Your task to perform on an android device: add a label to a message in the gmail app Image 0: 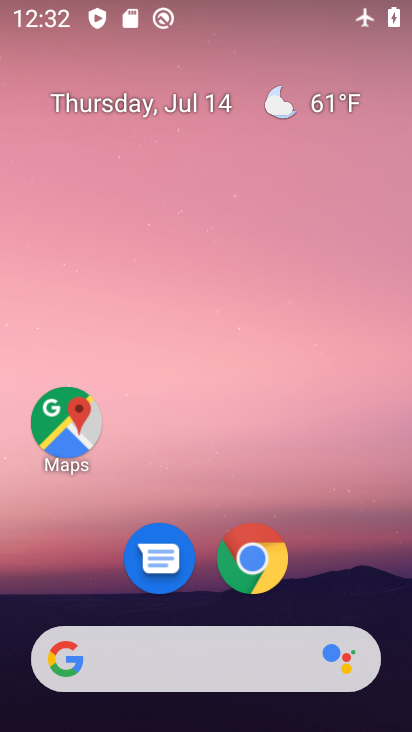
Step 0: drag from (201, 580) to (213, 3)
Your task to perform on an android device: add a label to a message in the gmail app Image 1: 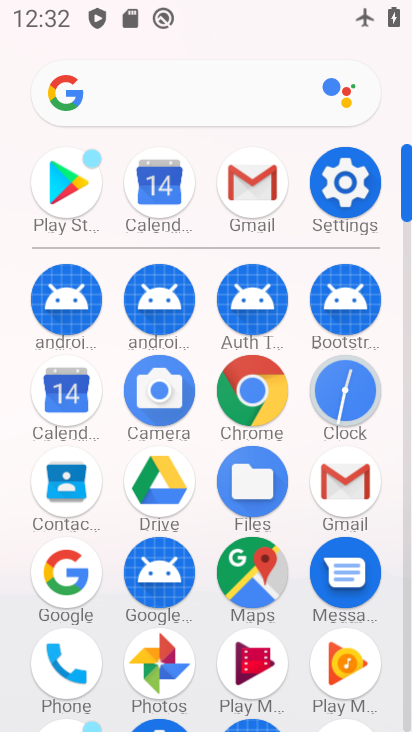
Step 1: click (241, 179)
Your task to perform on an android device: add a label to a message in the gmail app Image 2: 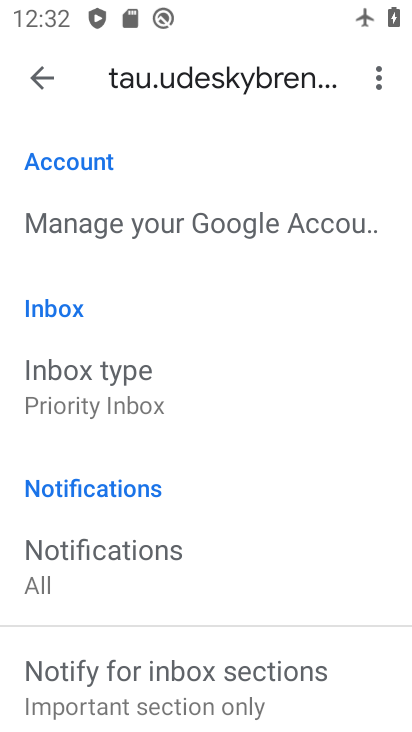
Step 2: click (32, 72)
Your task to perform on an android device: add a label to a message in the gmail app Image 3: 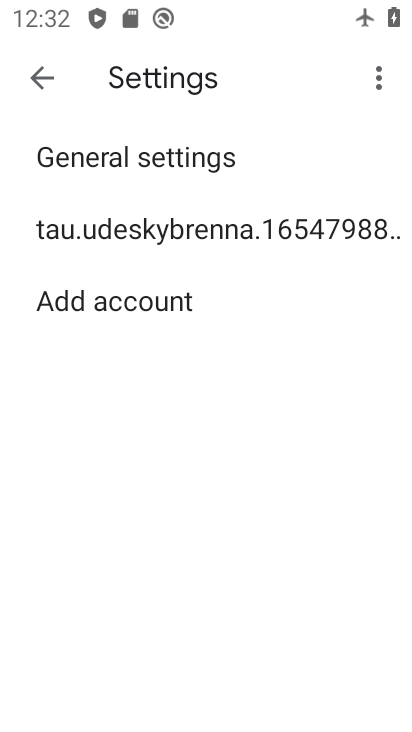
Step 3: click (172, 233)
Your task to perform on an android device: add a label to a message in the gmail app Image 4: 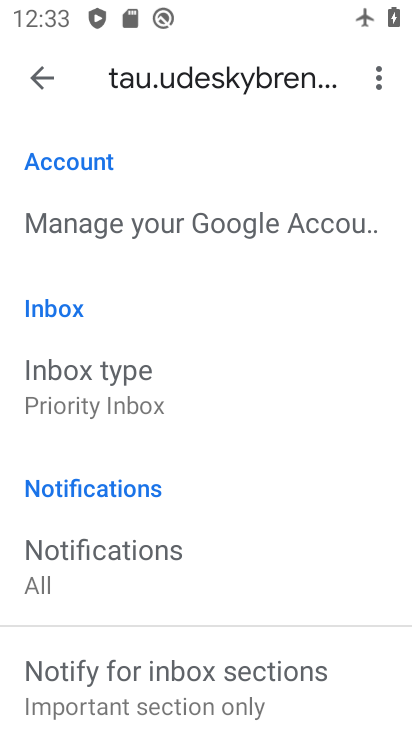
Step 4: click (46, 75)
Your task to perform on an android device: add a label to a message in the gmail app Image 5: 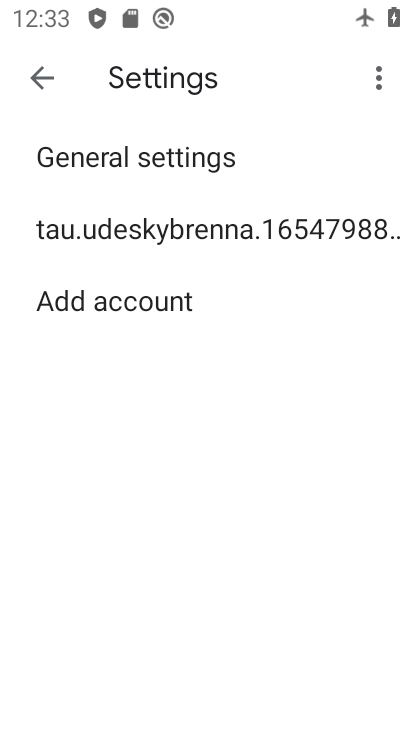
Step 5: click (43, 66)
Your task to perform on an android device: add a label to a message in the gmail app Image 6: 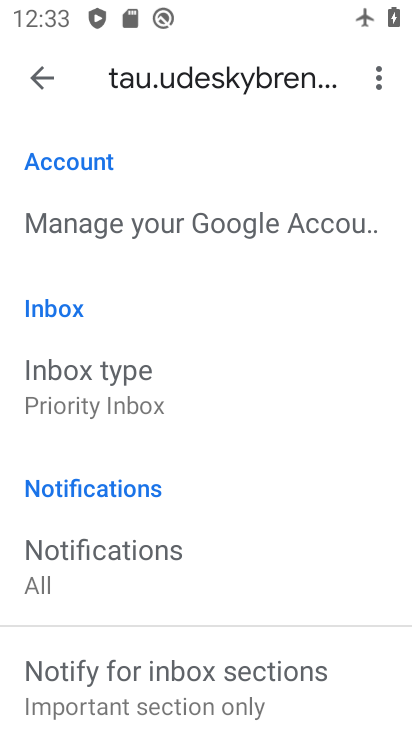
Step 6: drag from (159, 610) to (247, 52)
Your task to perform on an android device: add a label to a message in the gmail app Image 7: 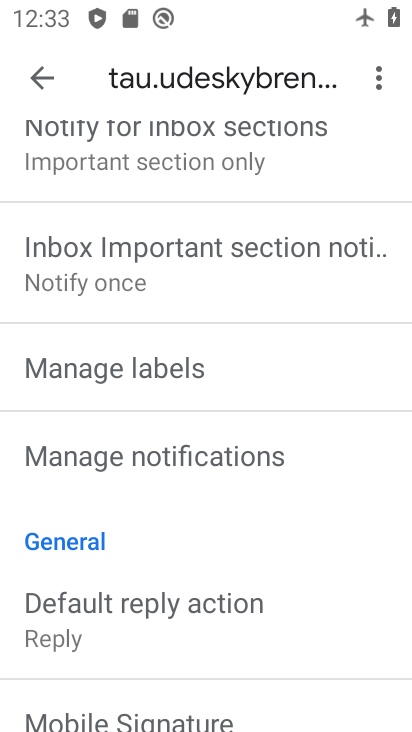
Step 7: drag from (224, 481) to (288, 77)
Your task to perform on an android device: add a label to a message in the gmail app Image 8: 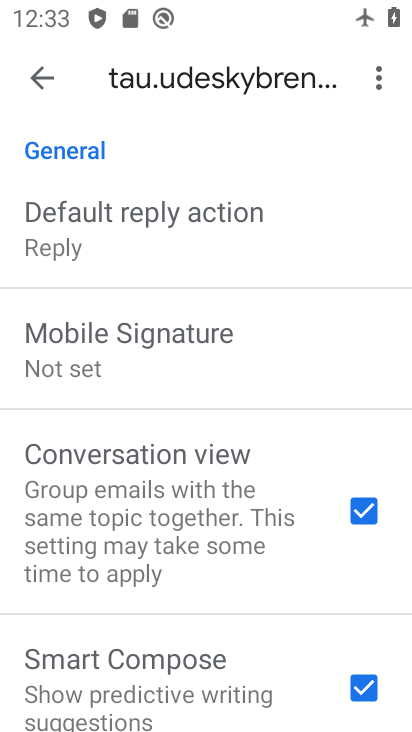
Step 8: drag from (257, 215) to (185, 727)
Your task to perform on an android device: add a label to a message in the gmail app Image 9: 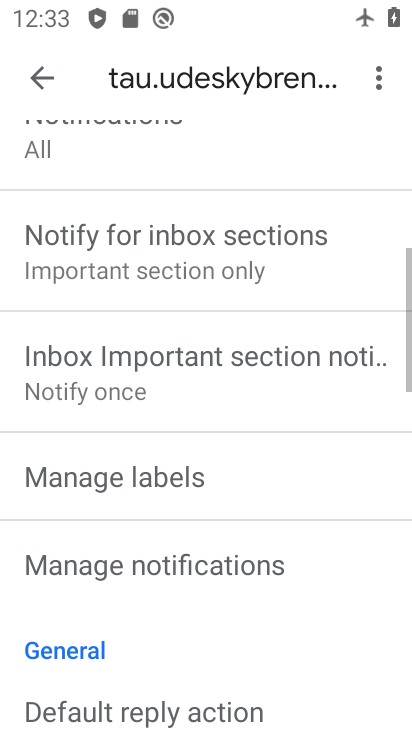
Step 9: drag from (177, 268) to (157, 688)
Your task to perform on an android device: add a label to a message in the gmail app Image 10: 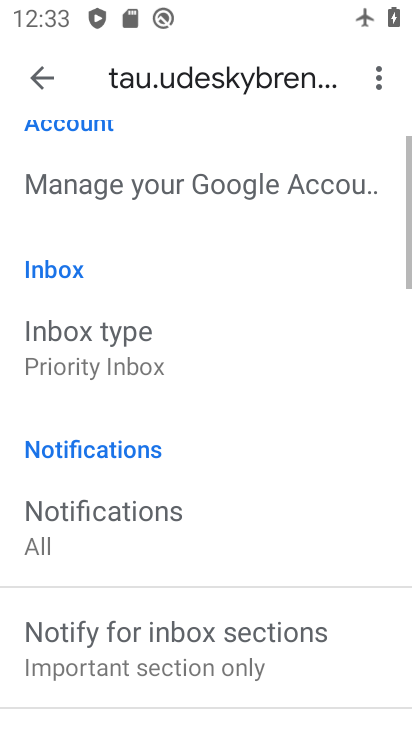
Step 10: drag from (170, 252) to (186, 723)
Your task to perform on an android device: add a label to a message in the gmail app Image 11: 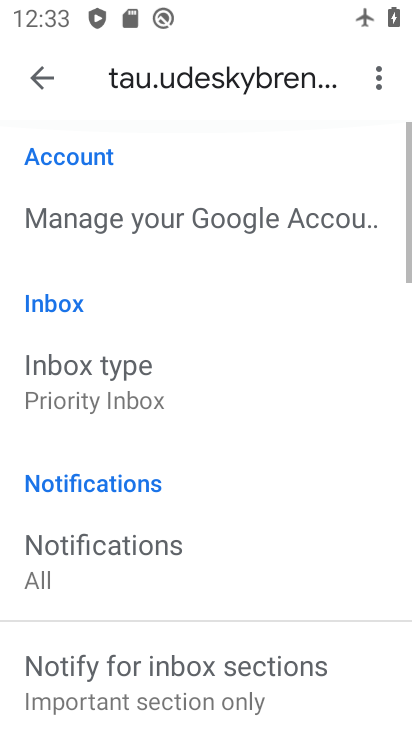
Step 11: click (36, 79)
Your task to perform on an android device: add a label to a message in the gmail app Image 12: 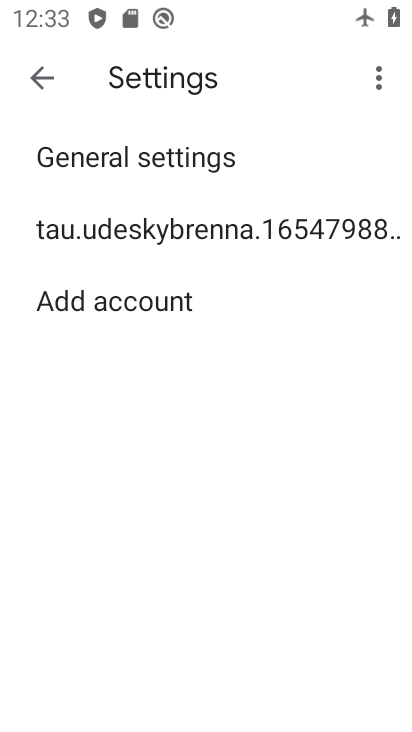
Step 12: click (37, 64)
Your task to perform on an android device: add a label to a message in the gmail app Image 13: 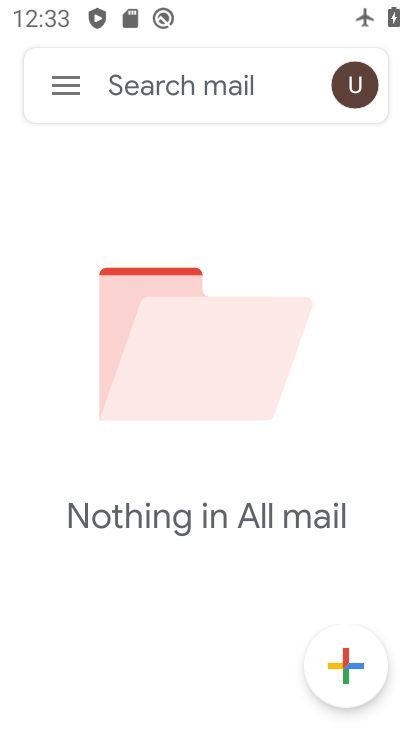
Step 13: task complete